Your task to perform on an android device: all mails in gmail Image 0: 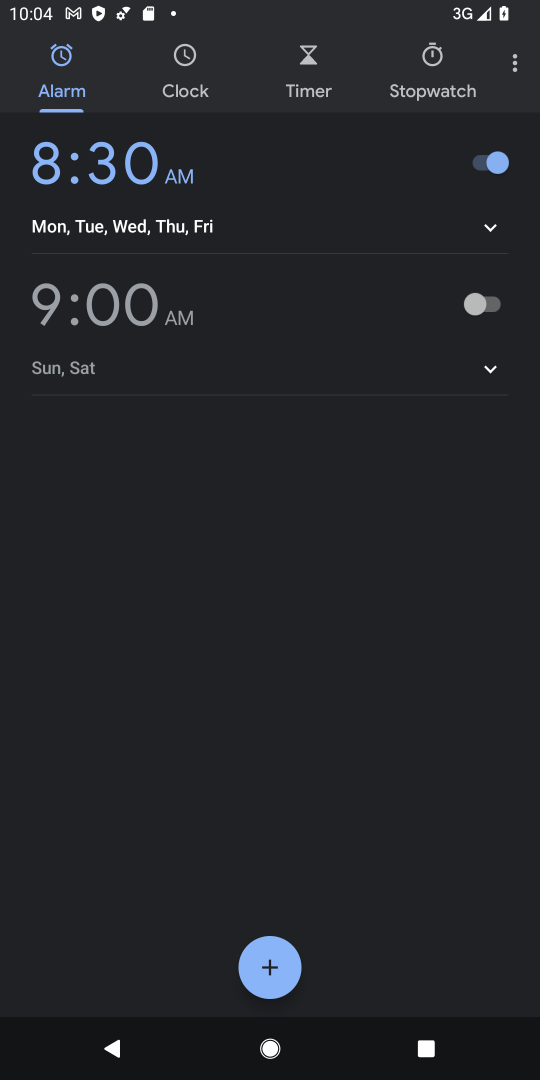
Step 0: press home button
Your task to perform on an android device: all mails in gmail Image 1: 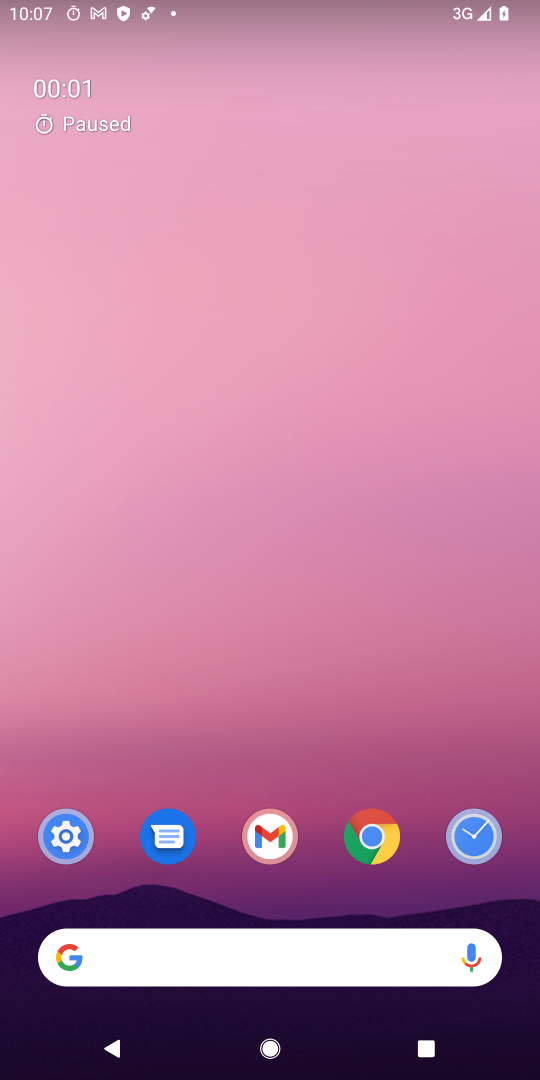
Step 1: drag from (413, 803) to (172, 64)
Your task to perform on an android device: all mails in gmail Image 2: 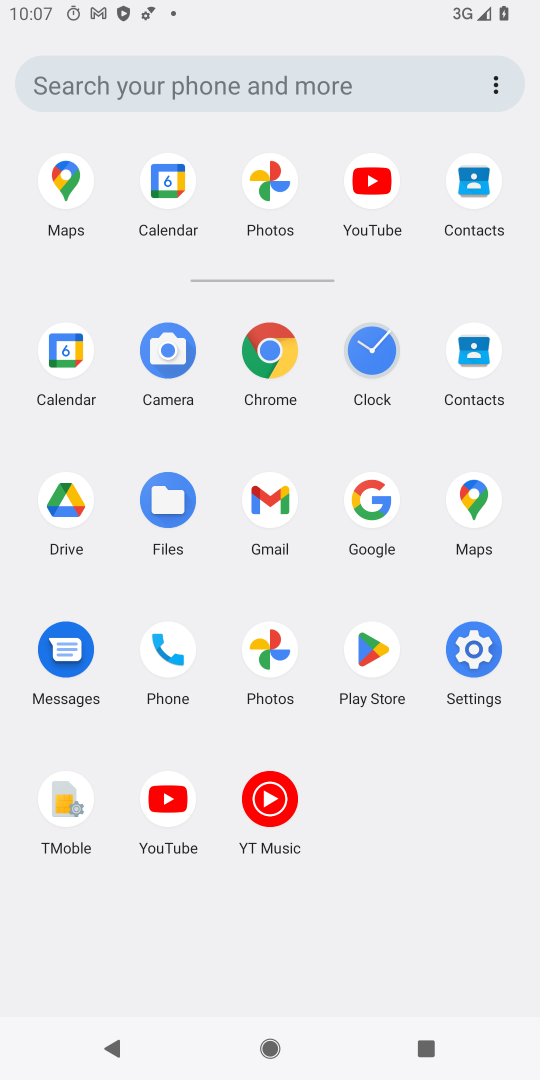
Step 2: click (270, 515)
Your task to perform on an android device: all mails in gmail Image 3: 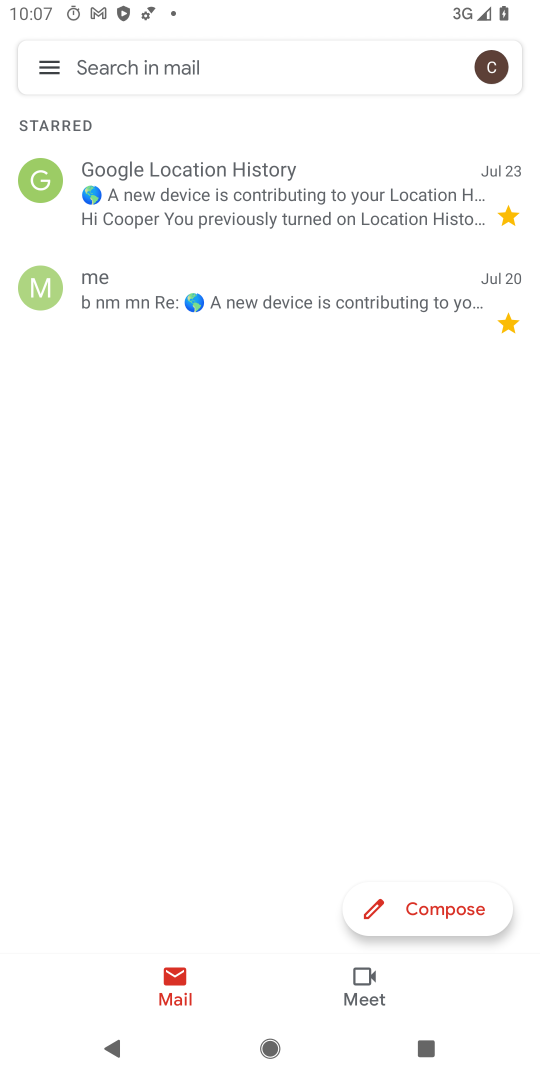
Step 3: click (43, 80)
Your task to perform on an android device: all mails in gmail Image 4: 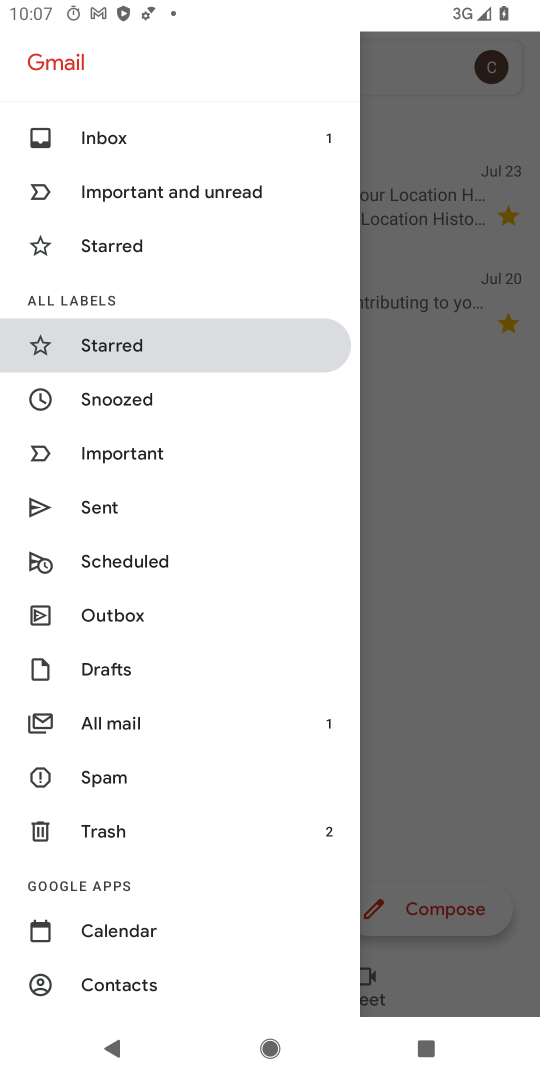
Step 4: click (104, 717)
Your task to perform on an android device: all mails in gmail Image 5: 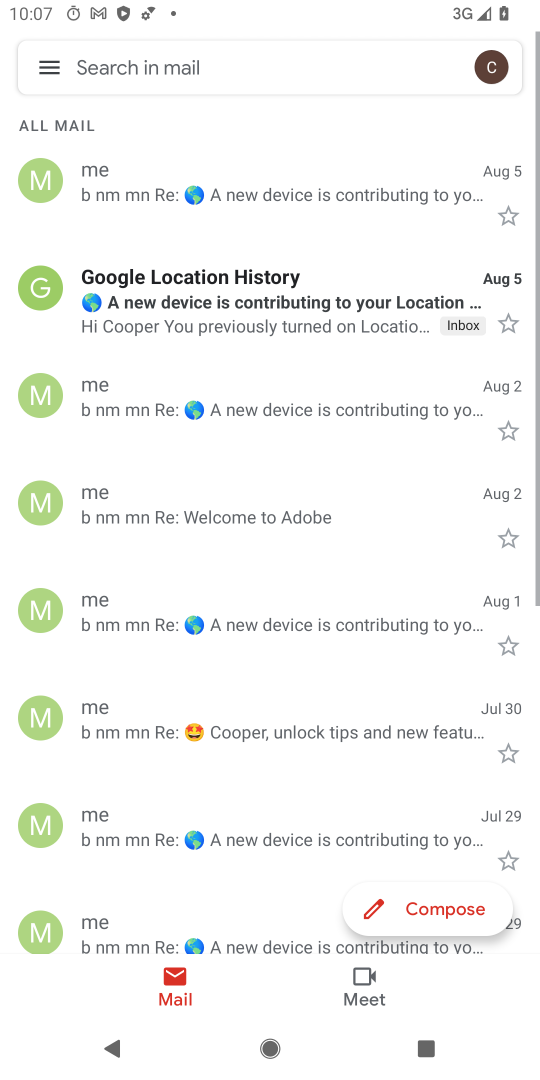
Step 5: task complete